Your task to perform on an android device: Open calendar and show me the third week of next month Image 0: 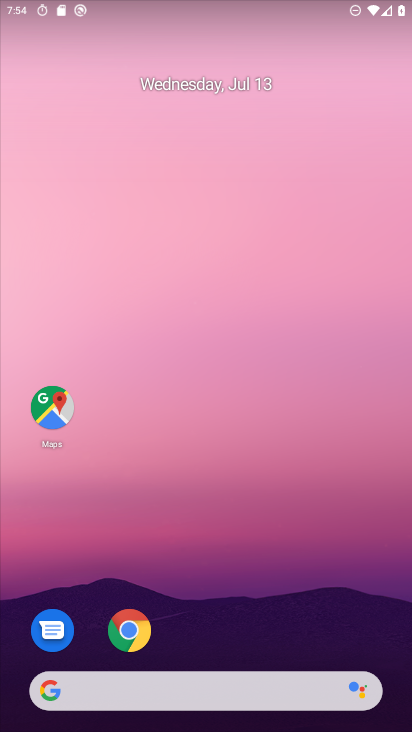
Step 0: drag from (355, 609) to (247, 42)
Your task to perform on an android device: Open calendar and show me the third week of next month Image 1: 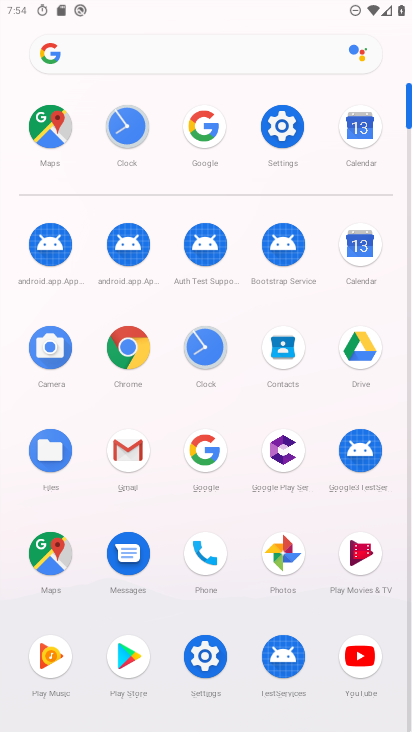
Step 1: click (348, 261)
Your task to perform on an android device: Open calendar and show me the third week of next month Image 2: 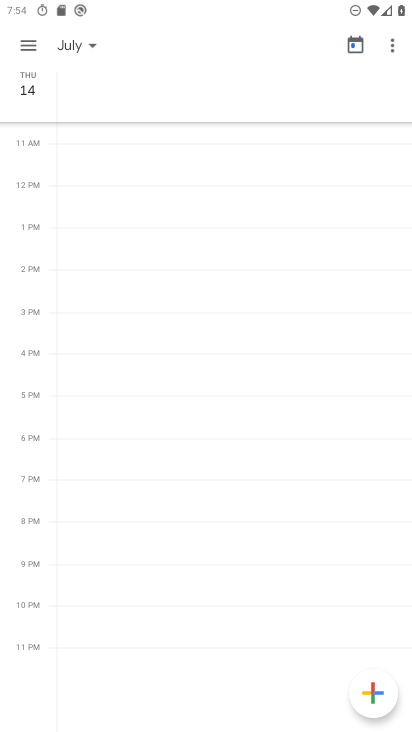
Step 2: click (75, 42)
Your task to perform on an android device: Open calendar and show me the third week of next month Image 3: 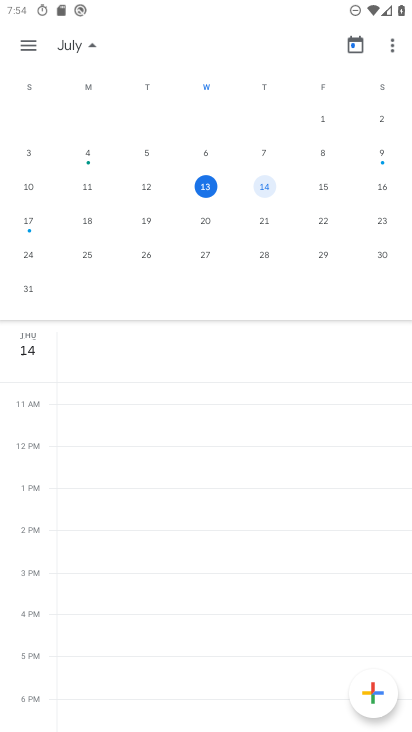
Step 3: drag from (362, 209) to (1, 194)
Your task to perform on an android device: Open calendar and show me the third week of next month Image 4: 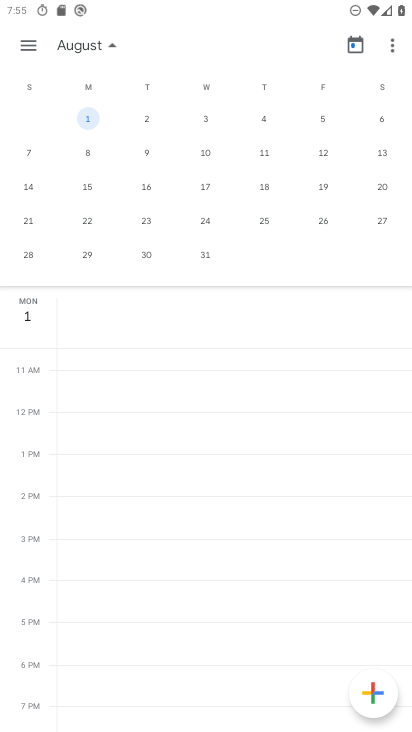
Step 4: click (31, 223)
Your task to perform on an android device: Open calendar and show me the third week of next month Image 5: 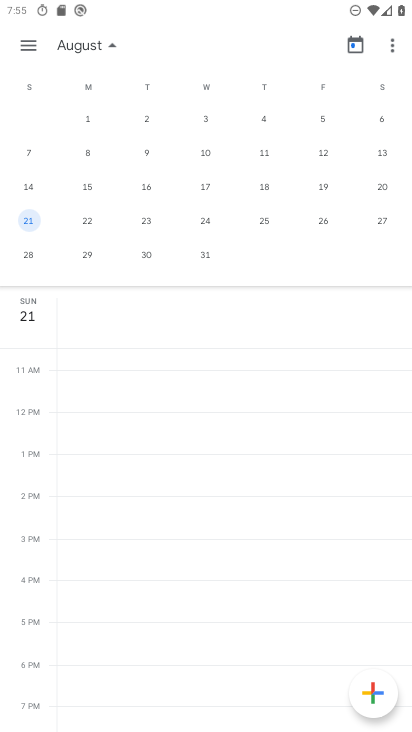
Step 5: task complete